Your task to perform on an android device: open app "Truecaller" Image 0: 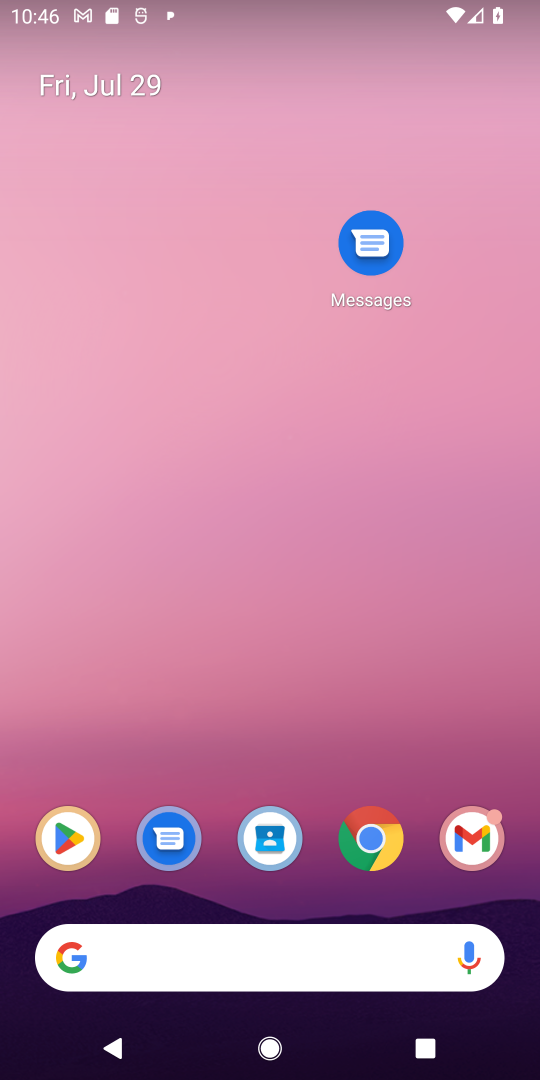
Step 0: click (82, 838)
Your task to perform on an android device: open app "Truecaller" Image 1: 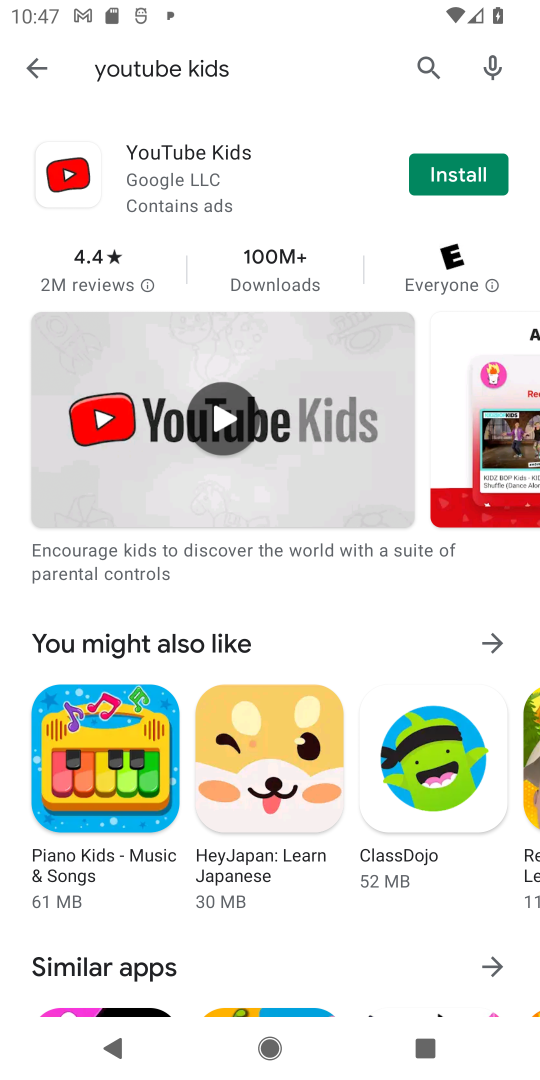
Step 1: click (170, 62)
Your task to perform on an android device: open app "Truecaller" Image 2: 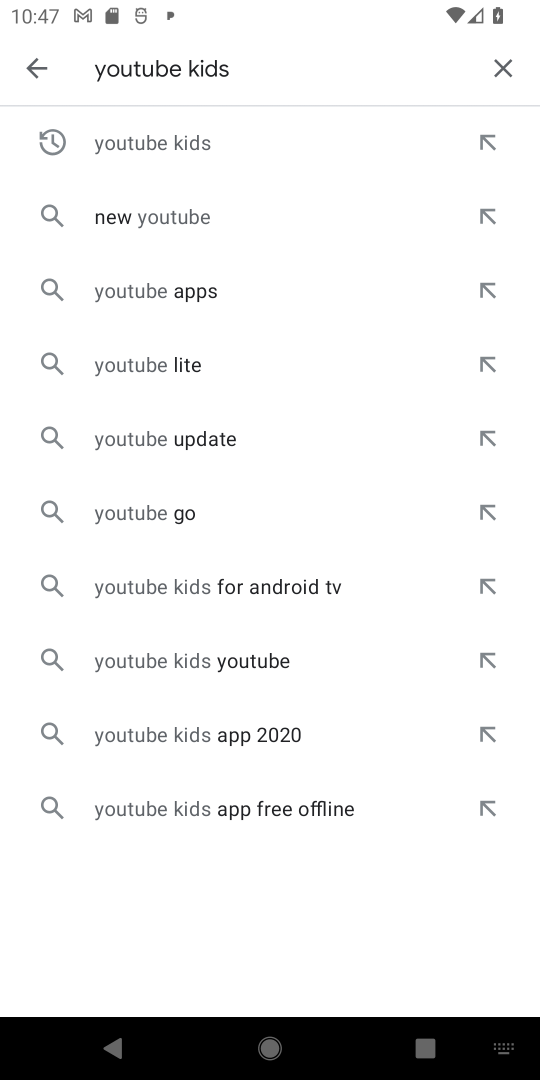
Step 2: click (491, 69)
Your task to perform on an android device: open app "Truecaller" Image 3: 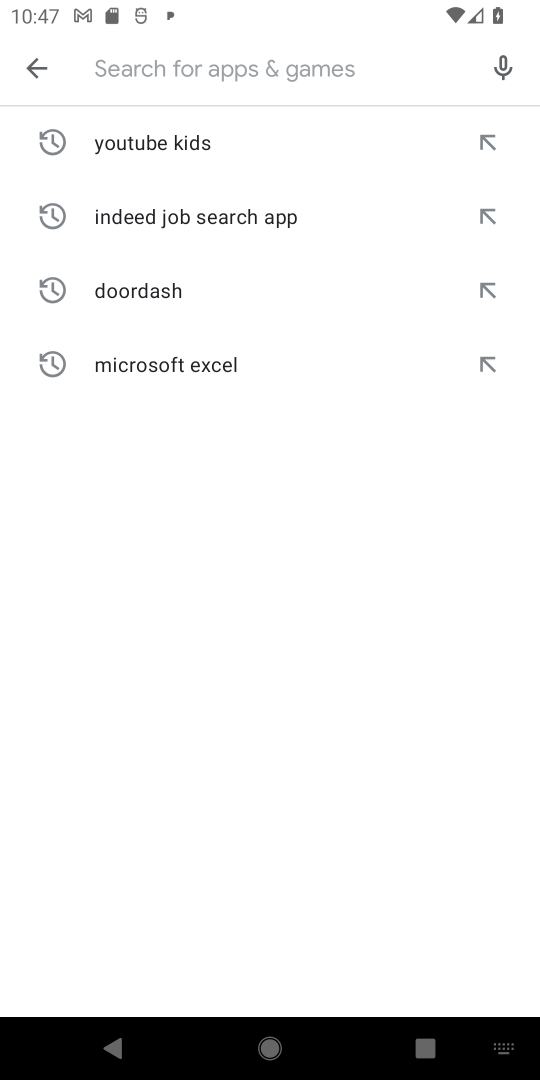
Step 3: type "truecaller"
Your task to perform on an android device: open app "Truecaller" Image 4: 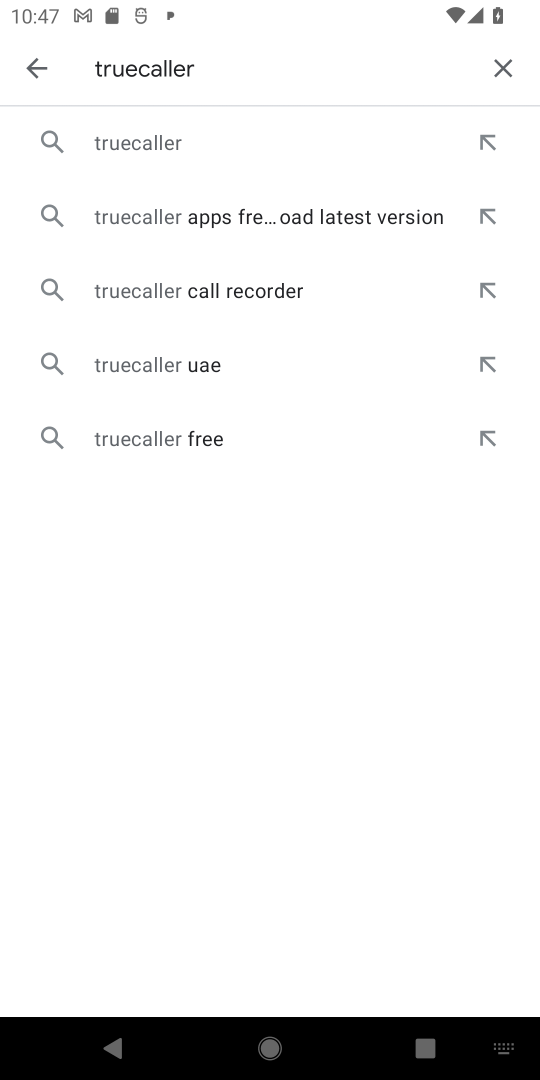
Step 4: click (167, 146)
Your task to perform on an android device: open app "Truecaller" Image 5: 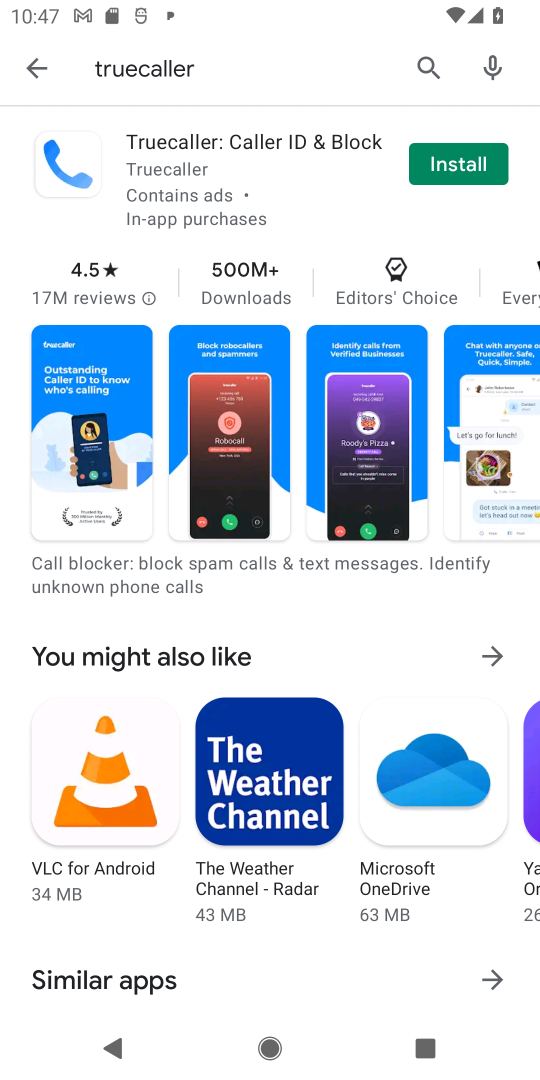
Step 5: task complete